Your task to perform on an android device: set the stopwatch Image 0: 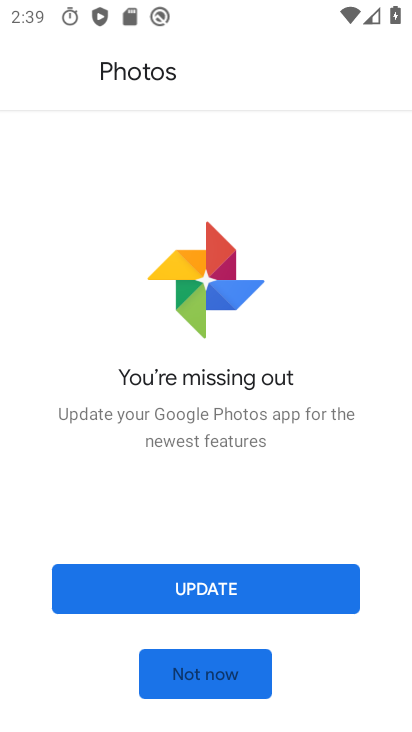
Step 0: press home button
Your task to perform on an android device: set the stopwatch Image 1: 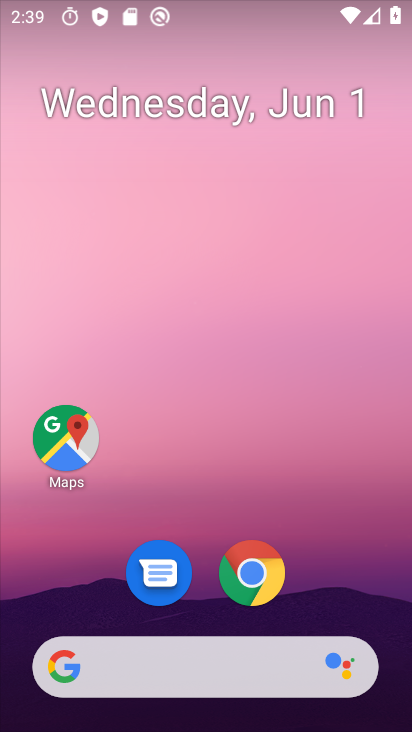
Step 1: drag from (205, 604) to (211, 275)
Your task to perform on an android device: set the stopwatch Image 2: 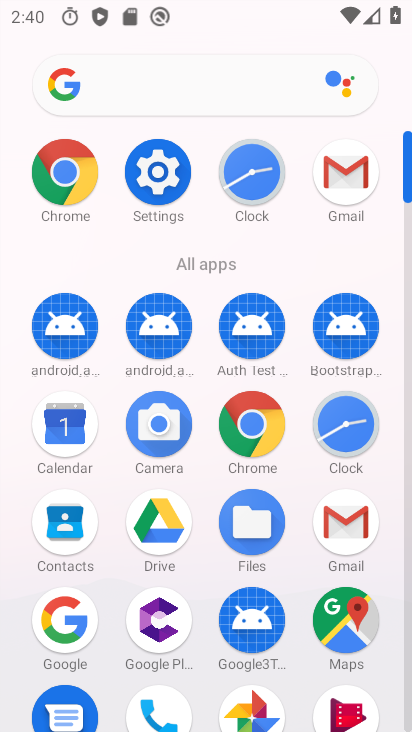
Step 2: click (332, 447)
Your task to perform on an android device: set the stopwatch Image 3: 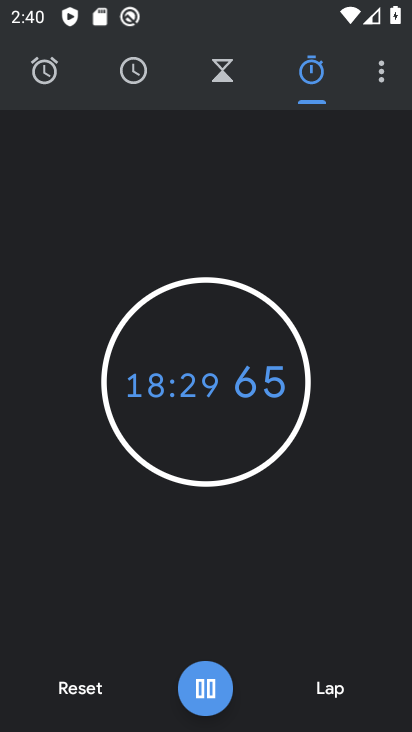
Step 3: task complete